Your task to perform on an android device: Empty the shopping cart on costco.com. Add macbook pro to the cart on costco.com Image 0: 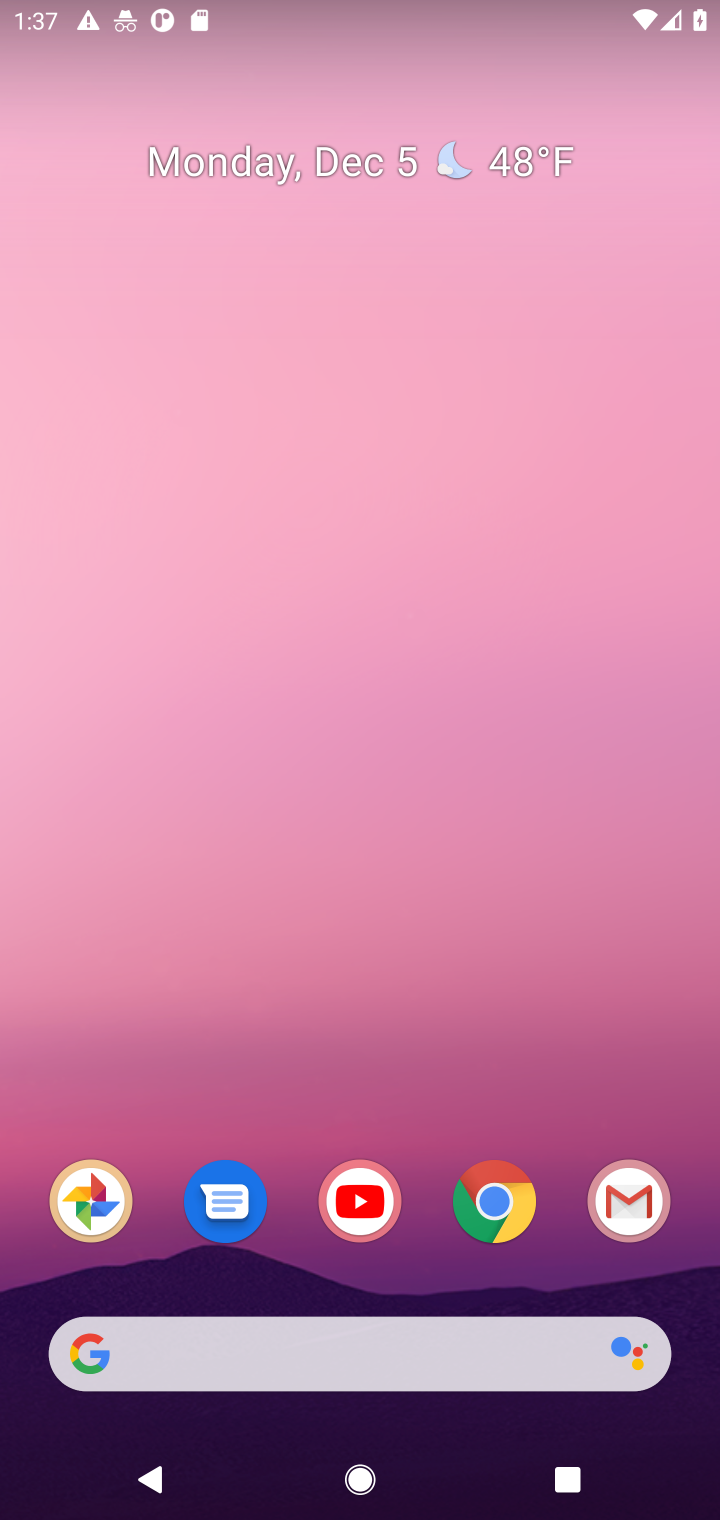
Step 0: click (483, 1223)
Your task to perform on an android device: Empty the shopping cart on costco.com. Add macbook pro to the cart on costco.com Image 1: 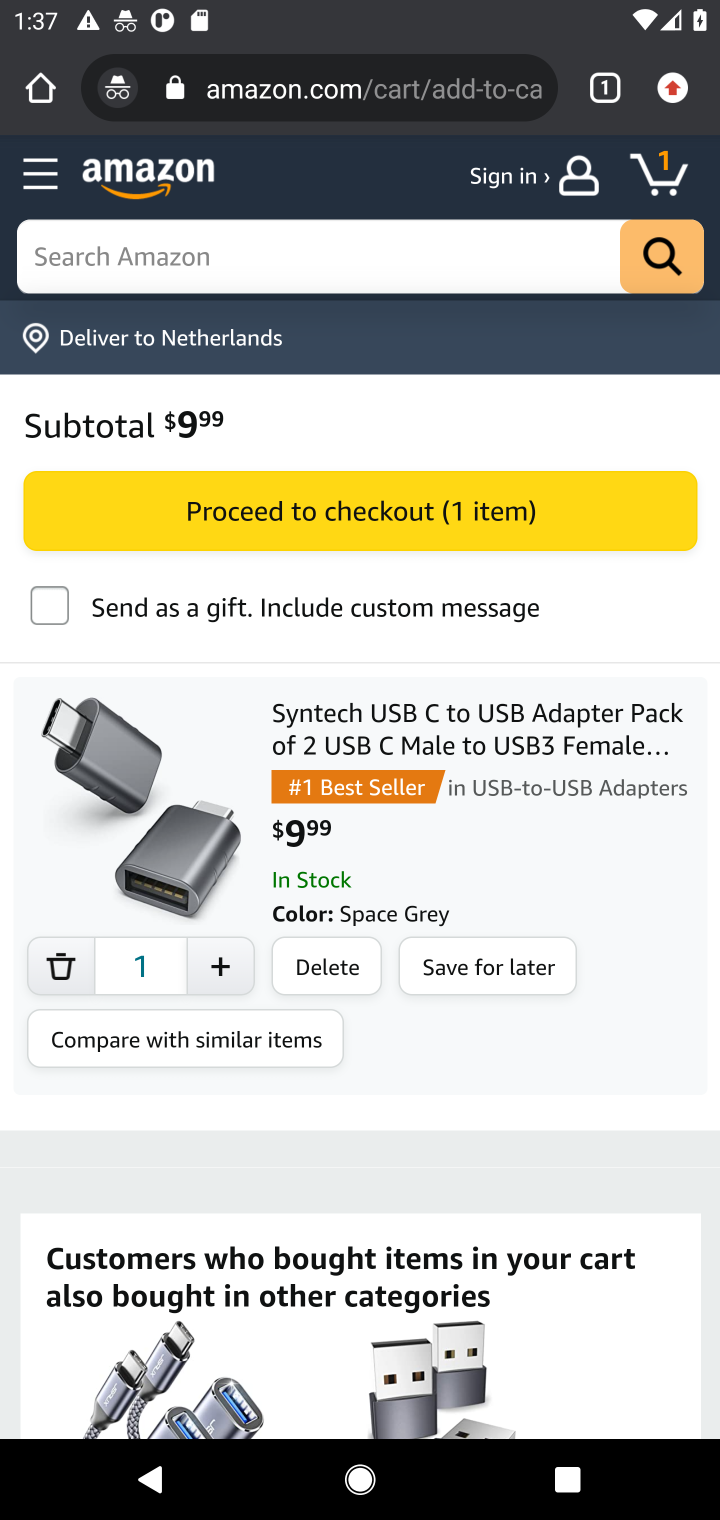
Step 1: click (496, 93)
Your task to perform on an android device: Empty the shopping cart on costco.com. Add macbook pro to the cart on costco.com Image 2: 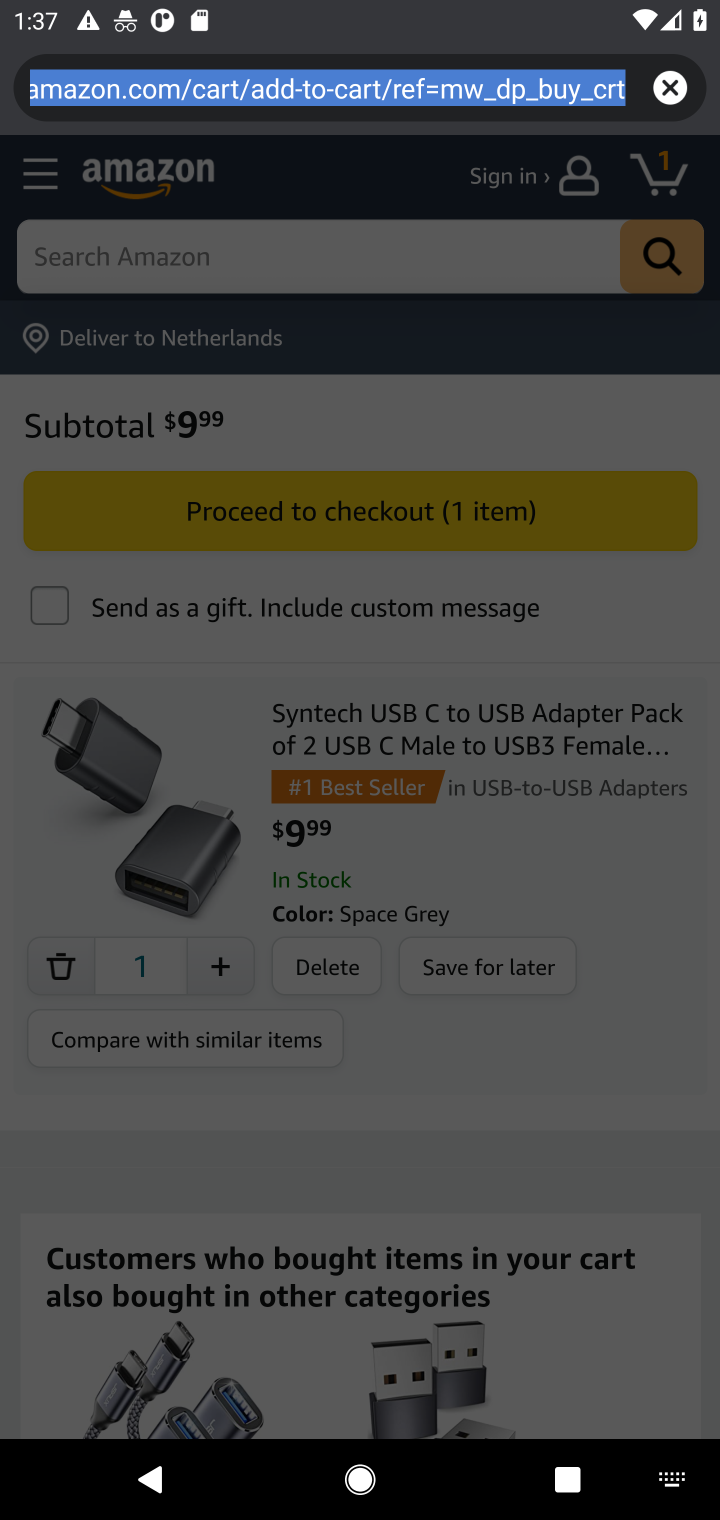
Step 2: click (662, 106)
Your task to perform on an android device: Empty the shopping cart on costco.com. Add macbook pro to the cart on costco.com Image 3: 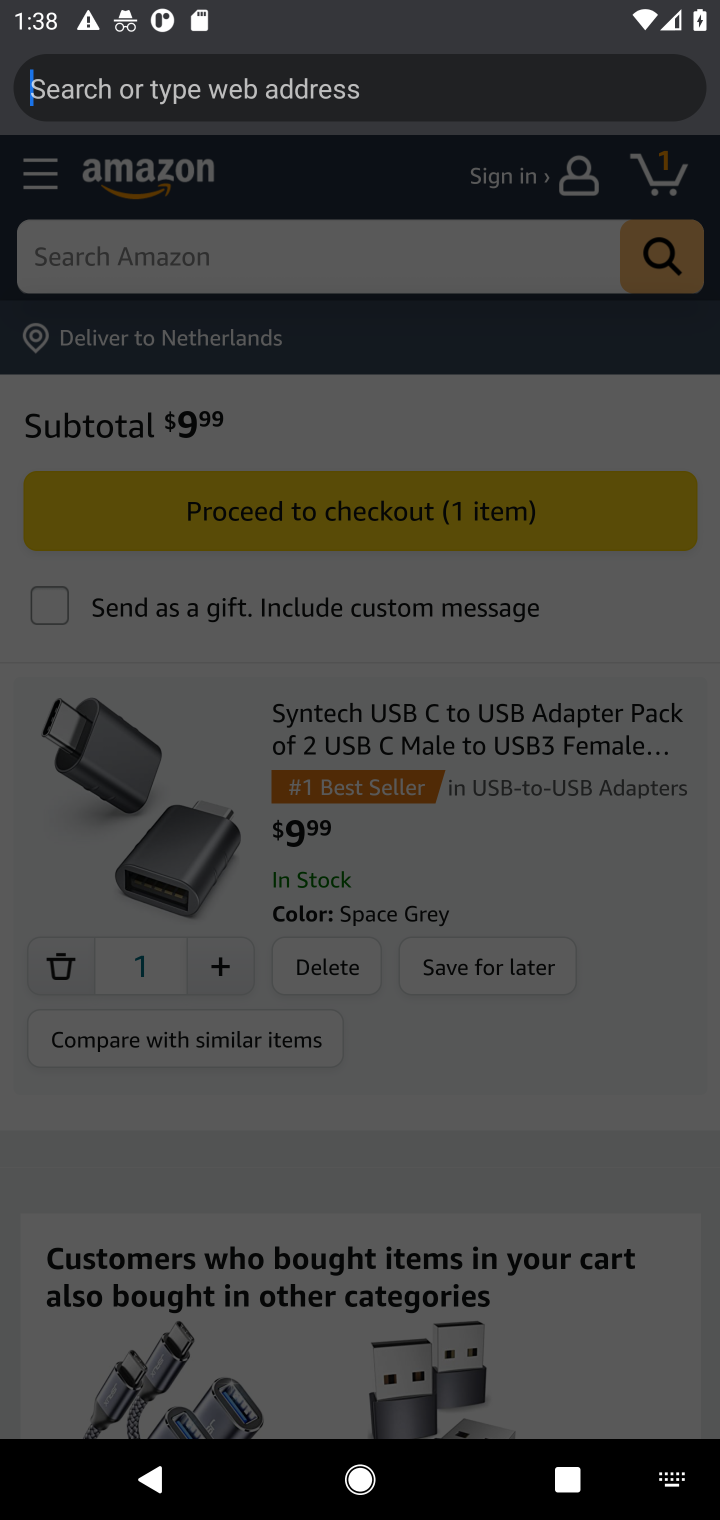
Step 3: type "costco"
Your task to perform on an android device: Empty the shopping cart on costco.com. Add macbook pro to the cart on costco.com Image 4: 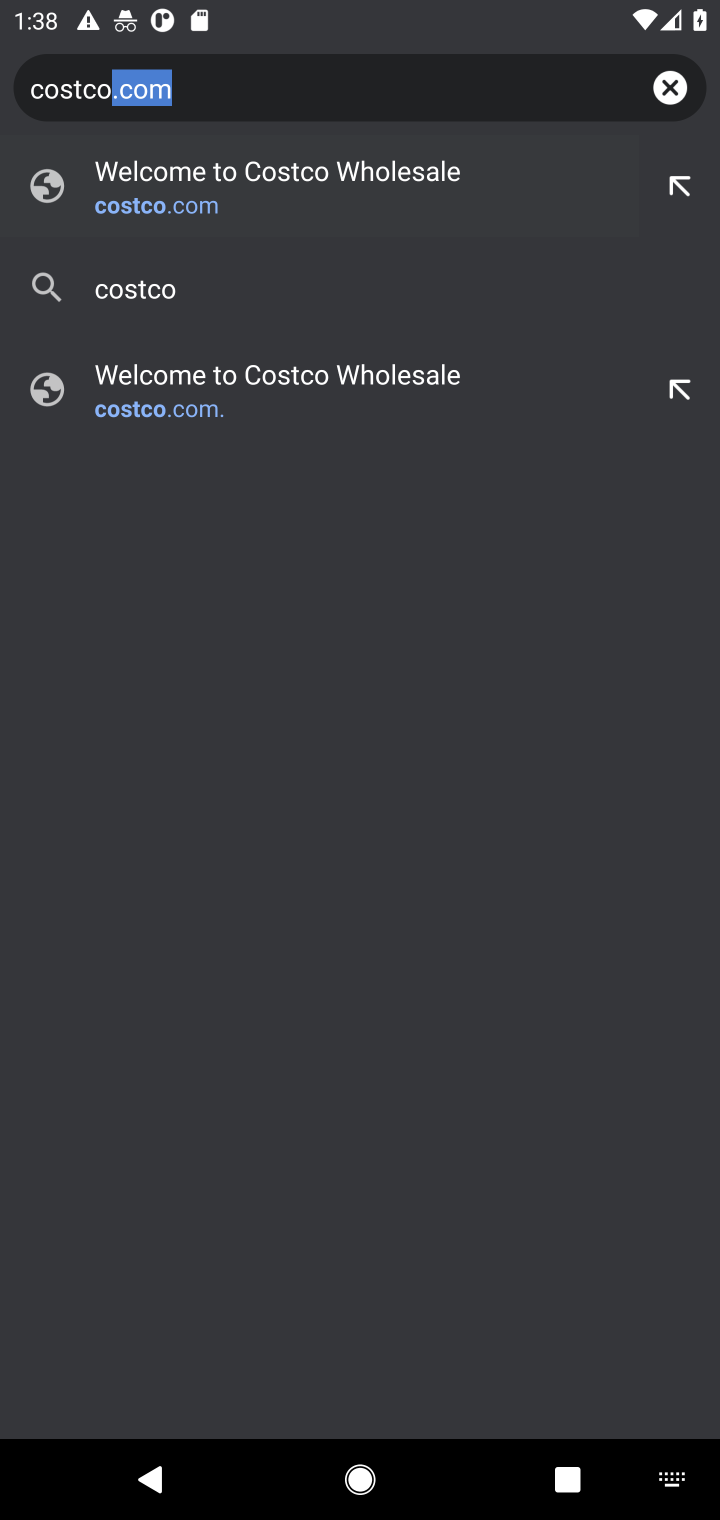
Step 4: click (100, 203)
Your task to perform on an android device: Empty the shopping cart on costco.com. Add macbook pro to the cart on costco.com Image 5: 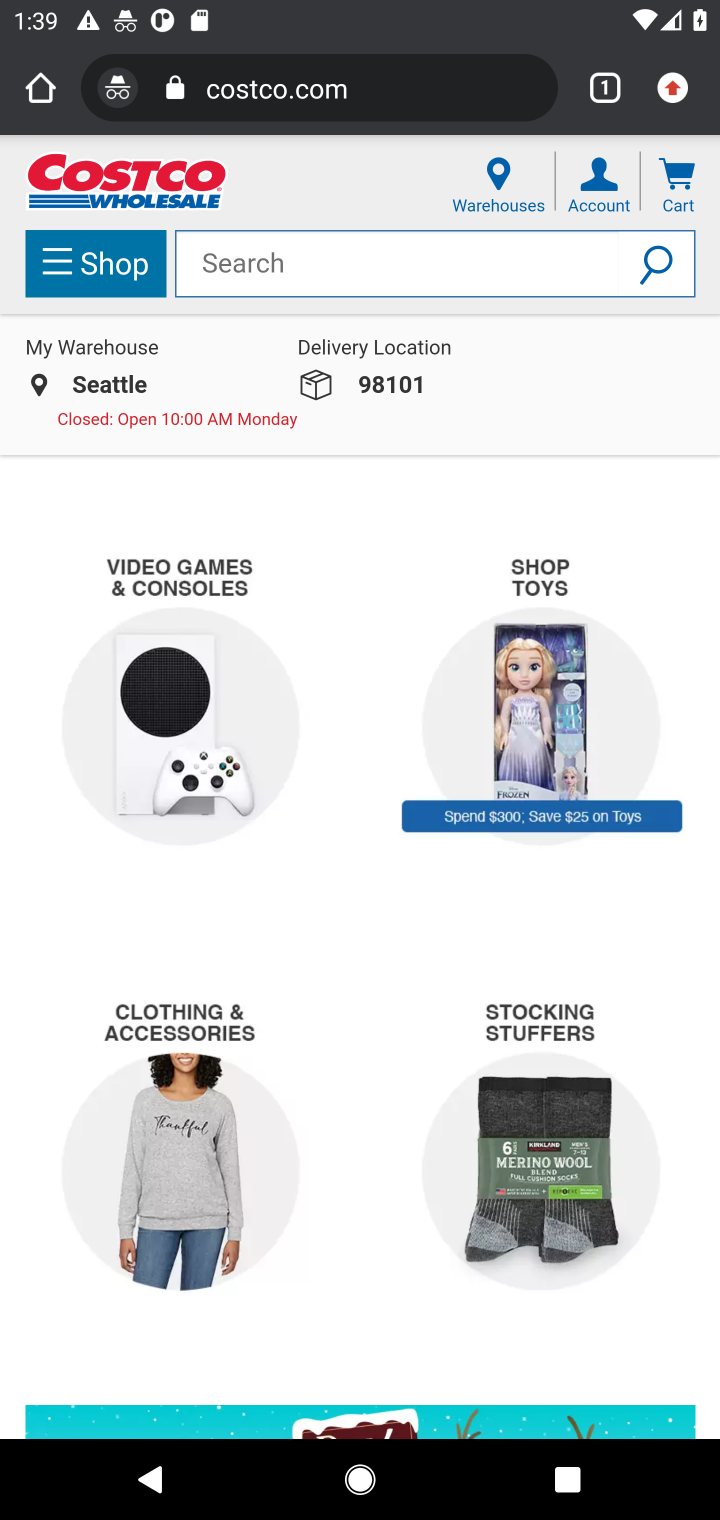
Step 5: click (671, 183)
Your task to perform on an android device: Empty the shopping cart on costco.com. Add macbook pro to the cart on costco.com Image 6: 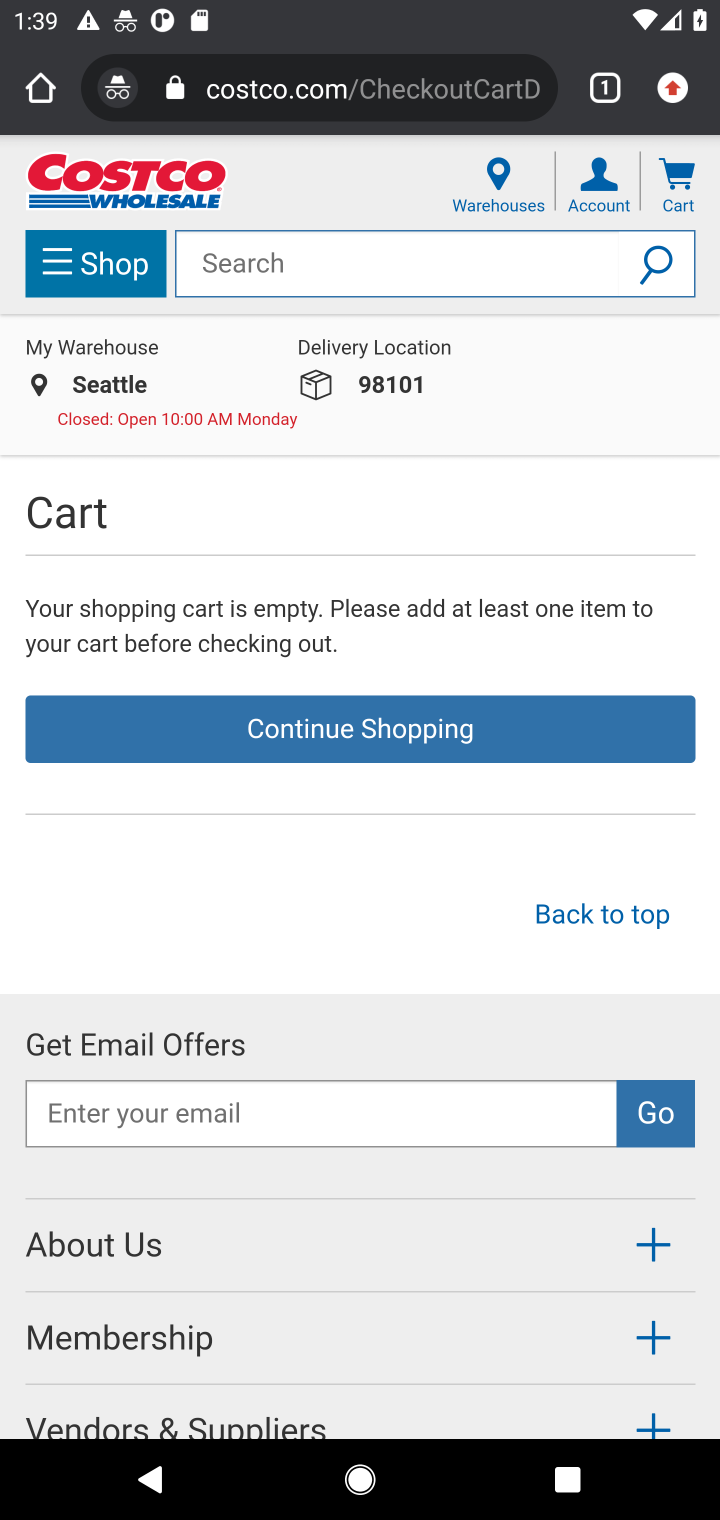
Step 6: click (671, 183)
Your task to perform on an android device: Empty the shopping cart on costco.com. Add macbook pro to the cart on costco.com Image 7: 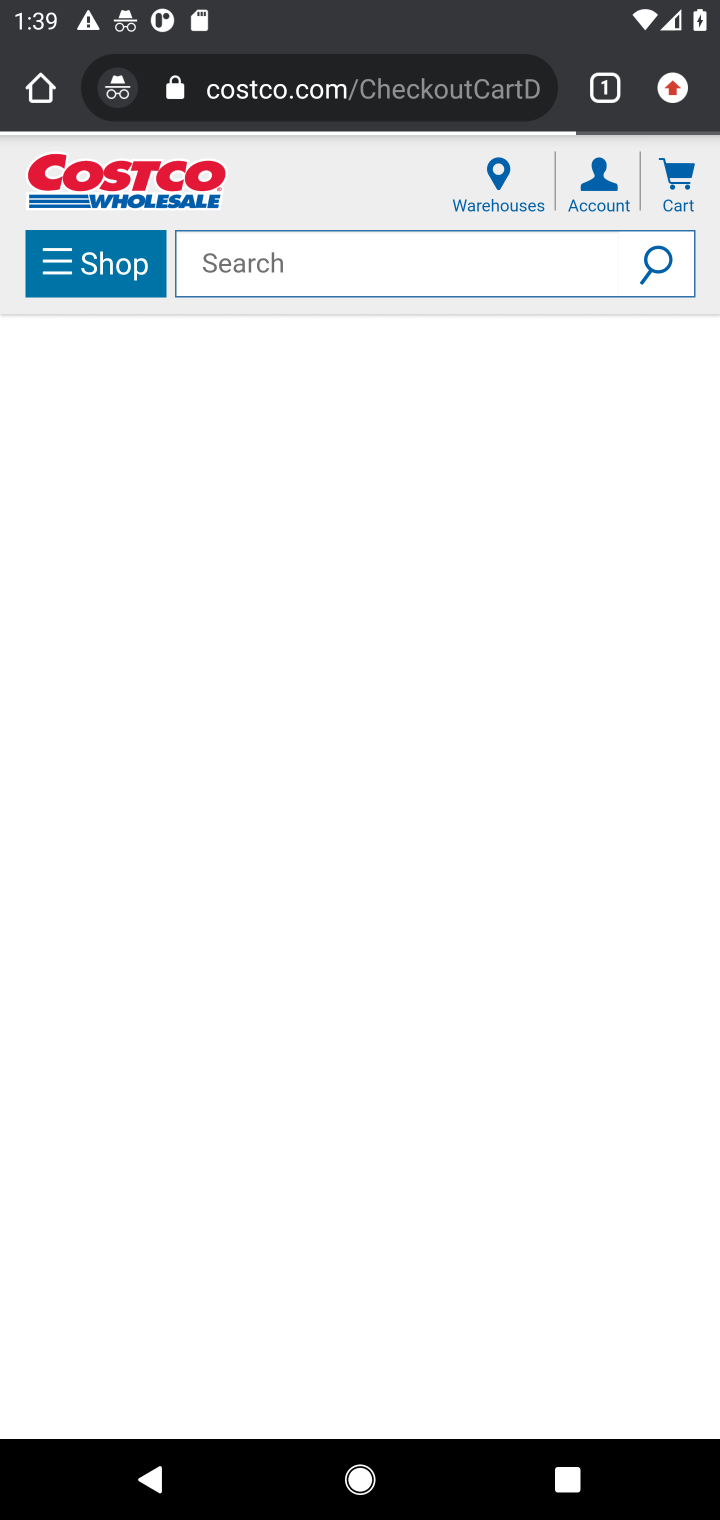
Step 7: click (495, 263)
Your task to perform on an android device: Empty the shopping cart on costco.com. Add macbook pro to the cart on costco.com Image 8: 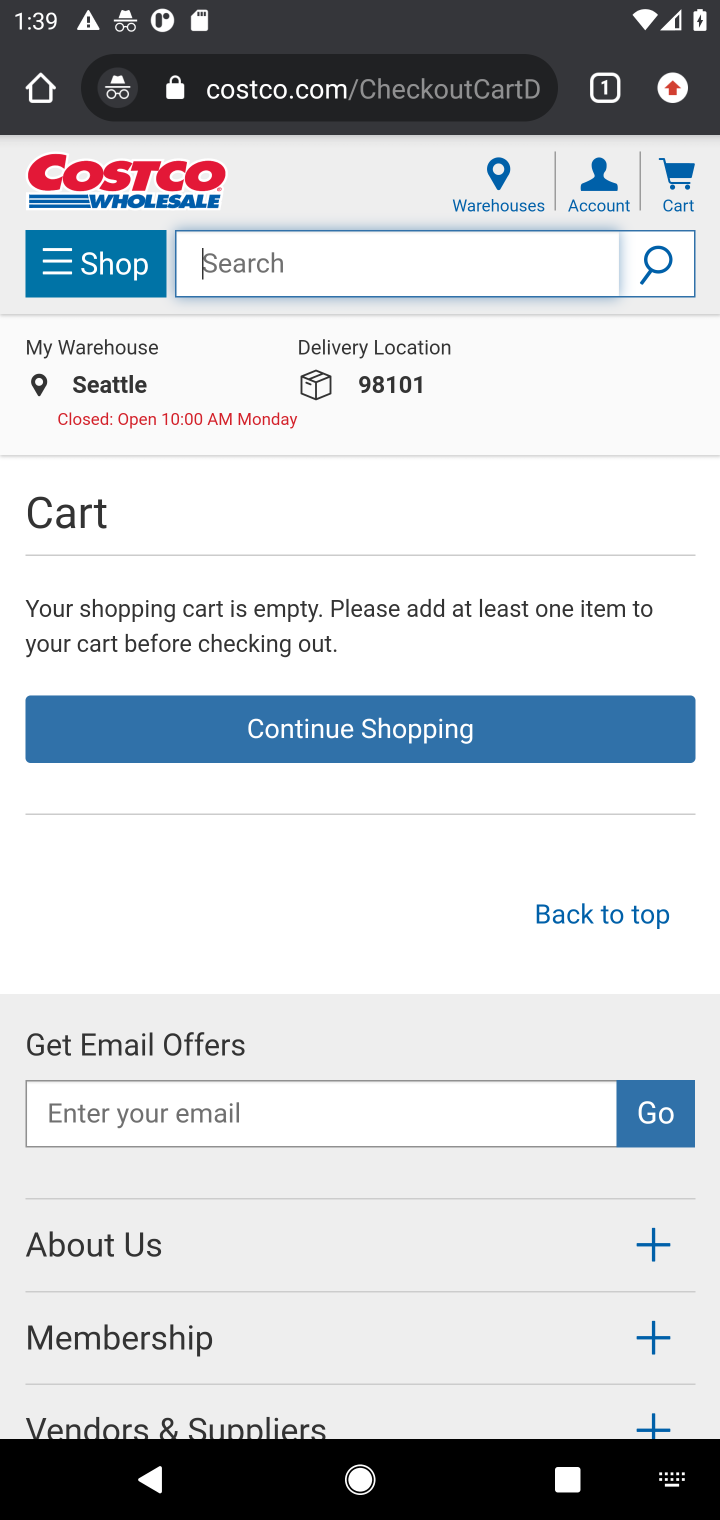
Step 8: type "macbook pro"
Your task to perform on an android device: Empty the shopping cart on costco.com. Add macbook pro to the cart on costco.com Image 9: 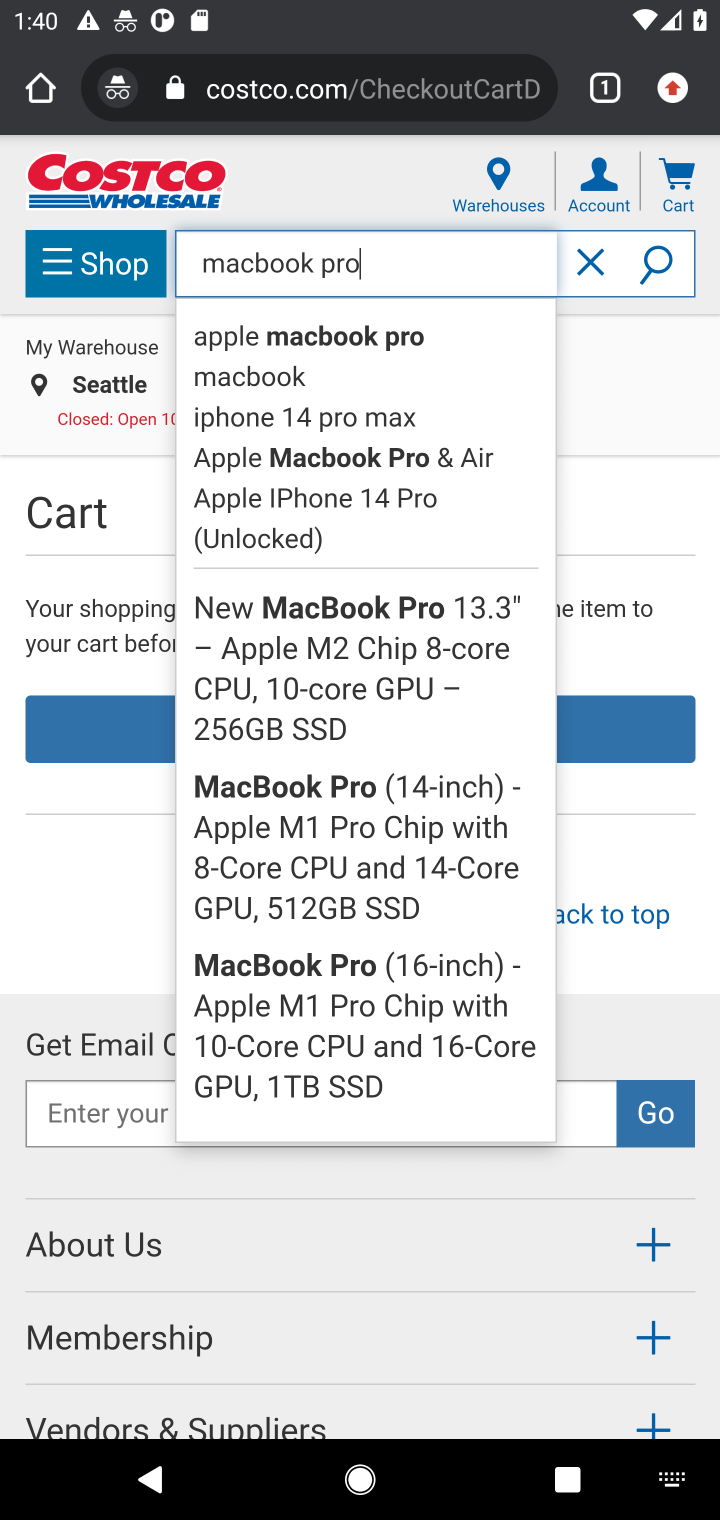
Step 9: click (646, 280)
Your task to perform on an android device: Empty the shopping cart on costco.com. Add macbook pro to the cart on costco.com Image 10: 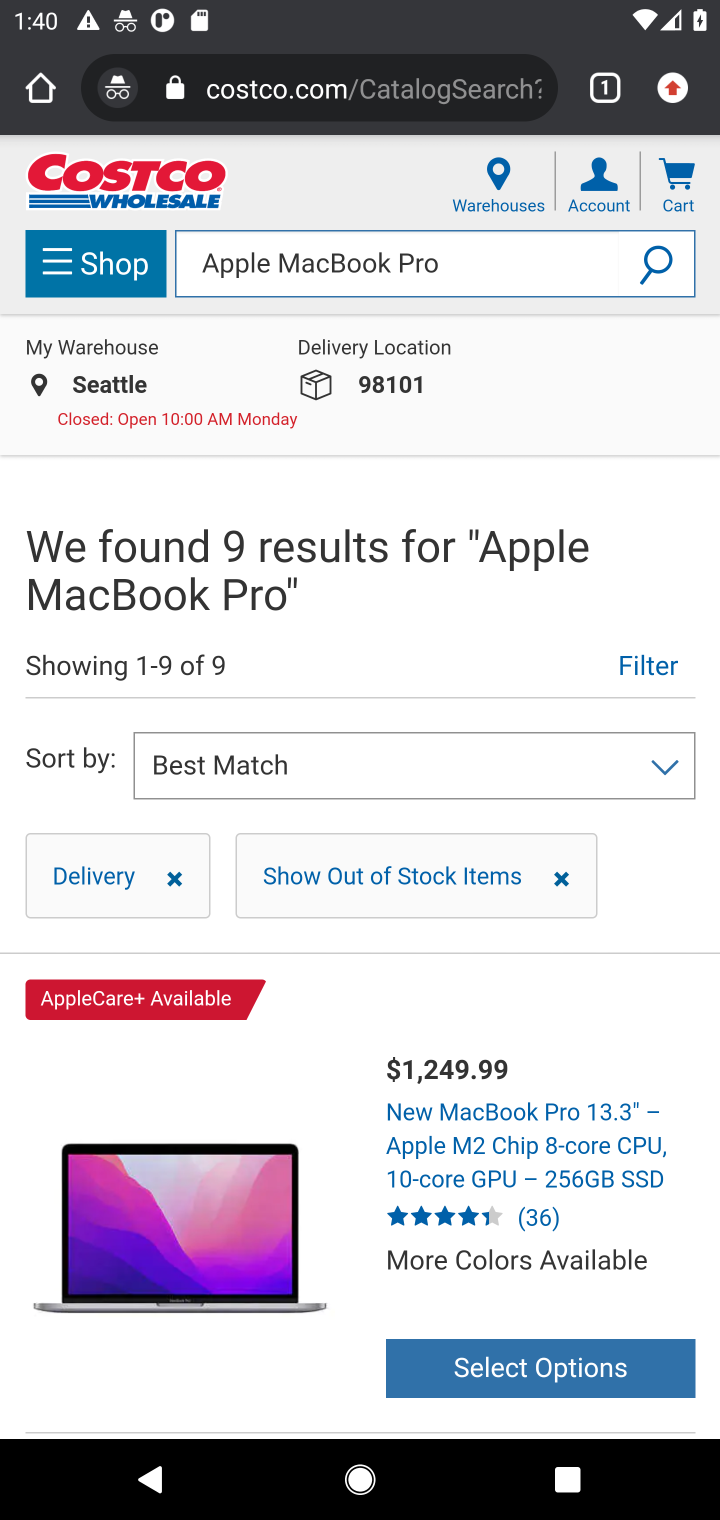
Step 10: drag from (446, 1229) to (480, 510)
Your task to perform on an android device: Empty the shopping cart on costco.com. Add macbook pro to the cart on costco.com Image 11: 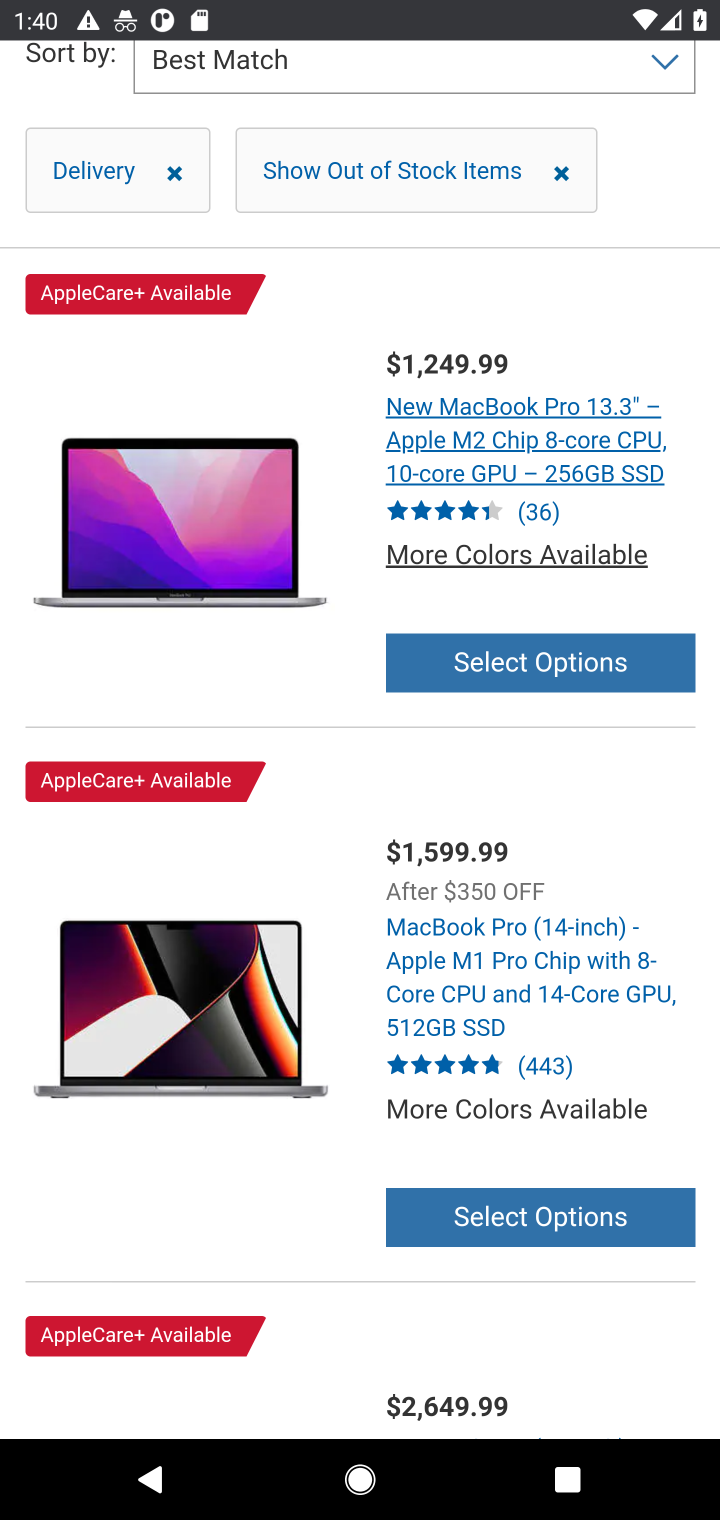
Step 11: click (532, 655)
Your task to perform on an android device: Empty the shopping cart on costco.com. Add macbook pro to the cart on costco.com Image 12: 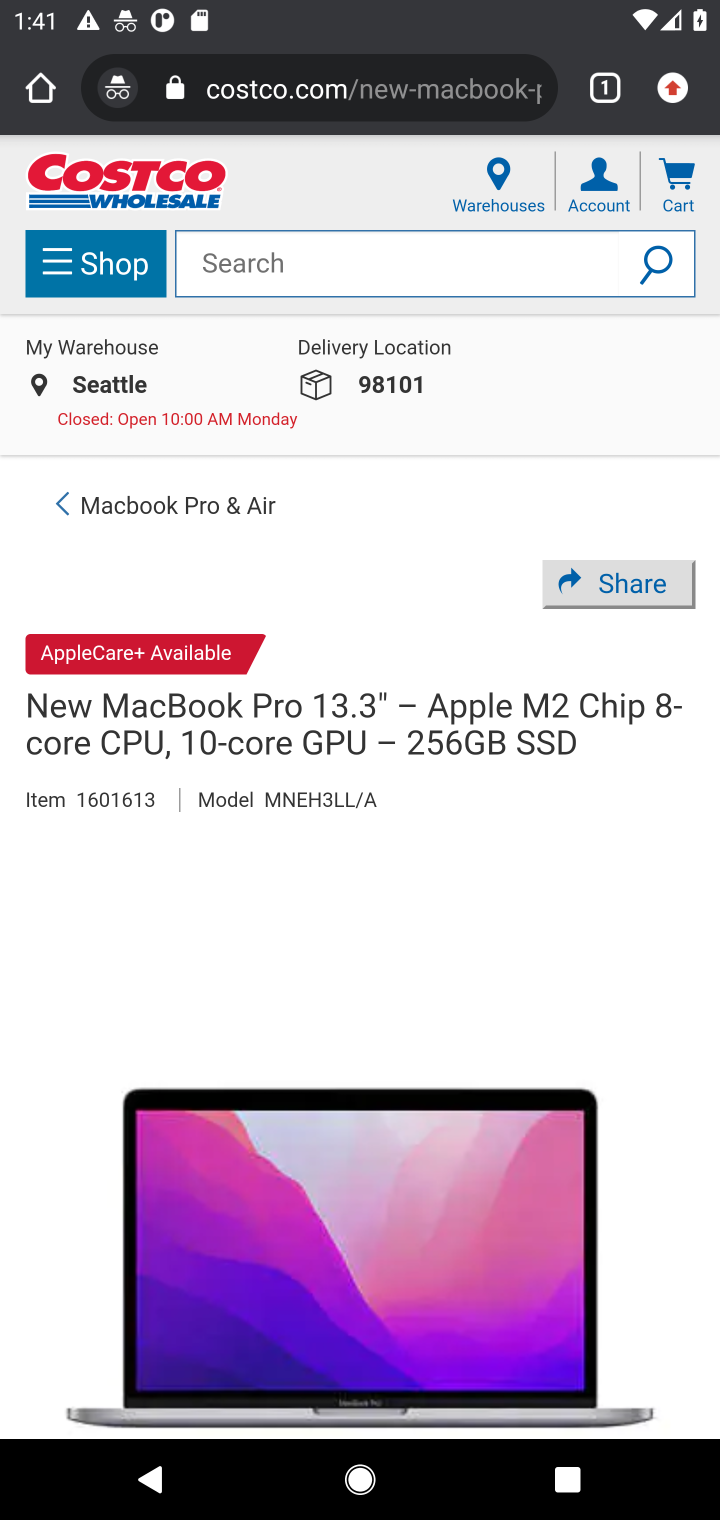
Step 12: drag from (297, 945) to (352, 296)
Your task to perform on an android device: Empty the shopping cart on costco.com. Add macbook pro to the cart on costco.com Image 13: 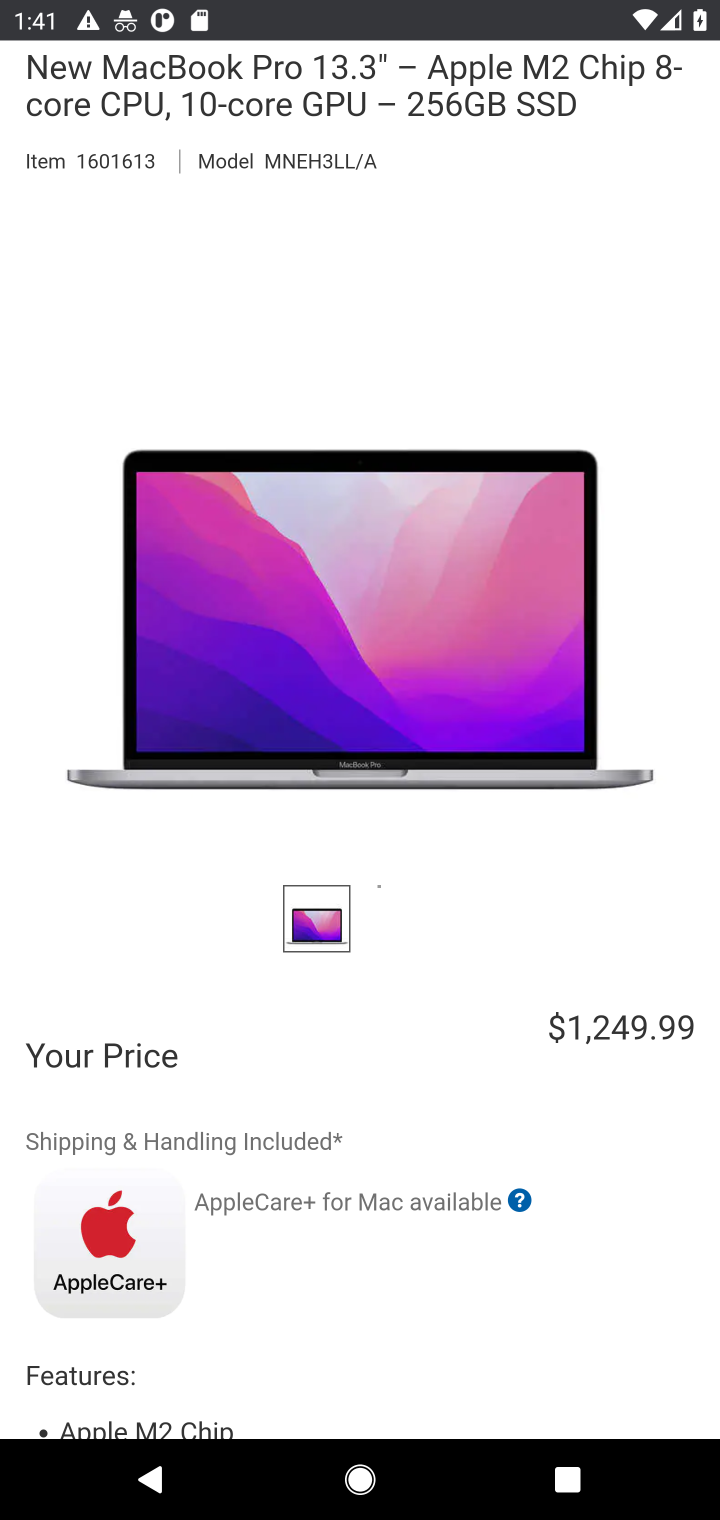
Step 13: drag from (289, 1150) to (318, 499)
Your task to perform on an android device: Empty the shopping cart on costco.com. Add macbook pro to the cart on costco.com Image 14: 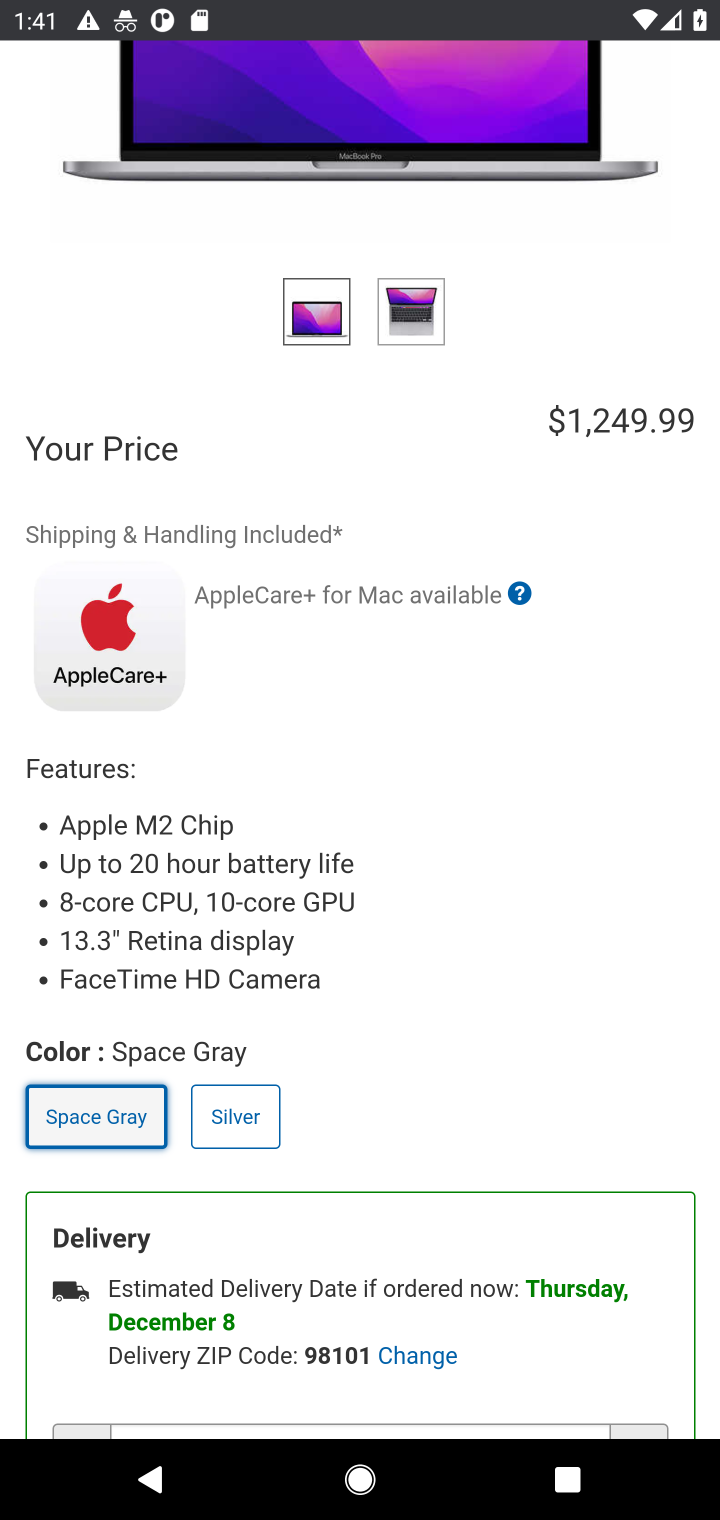
Step 14: drag from (381, 1146) to (434, 424)
Your task to perform on an android device: Empty the shopping cart on costco.com. Add macbook pro to the cart on costco.com Image 15: 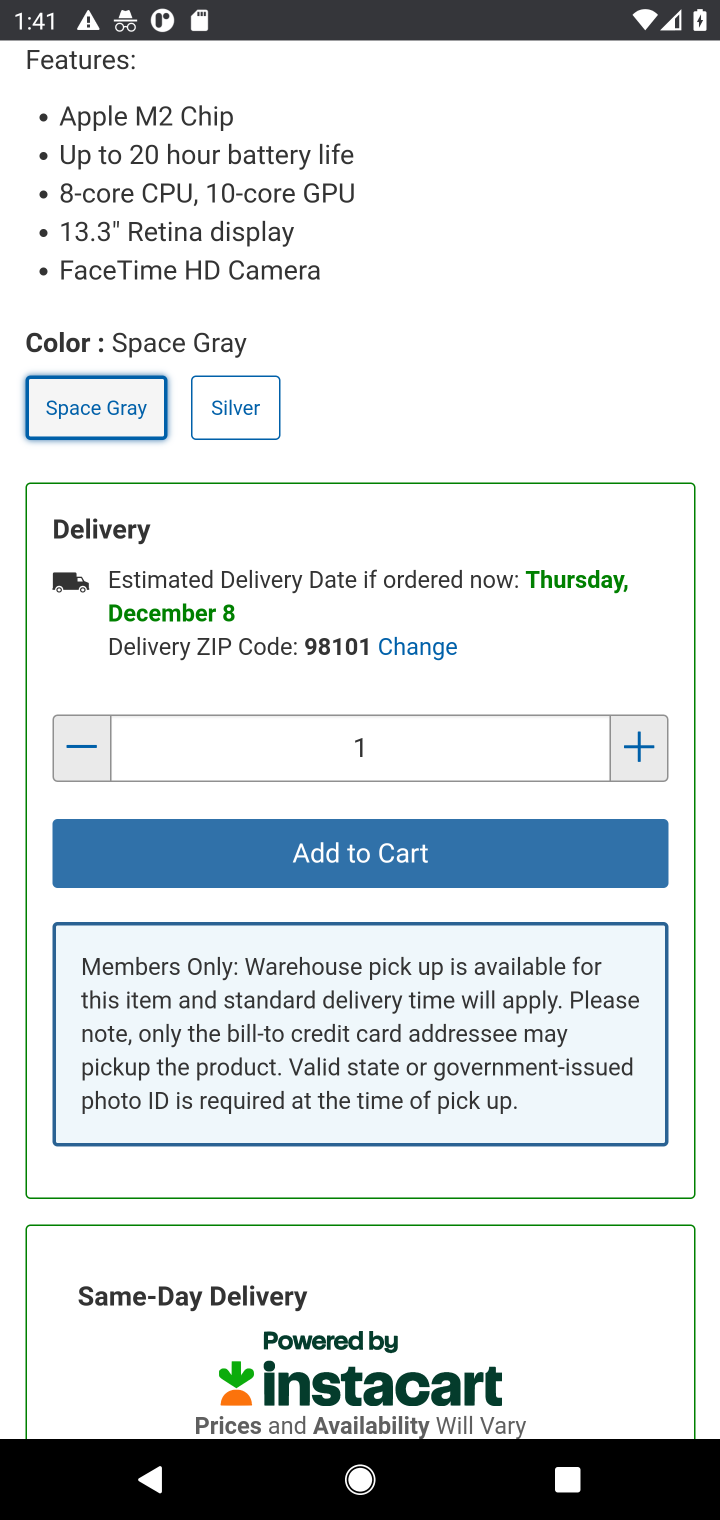
Step 15: click (438, 838)
Your task to perform on an android device: Empty the shopping cart on costco.com. Add macbook pro to the cart on costco.com Image 16: 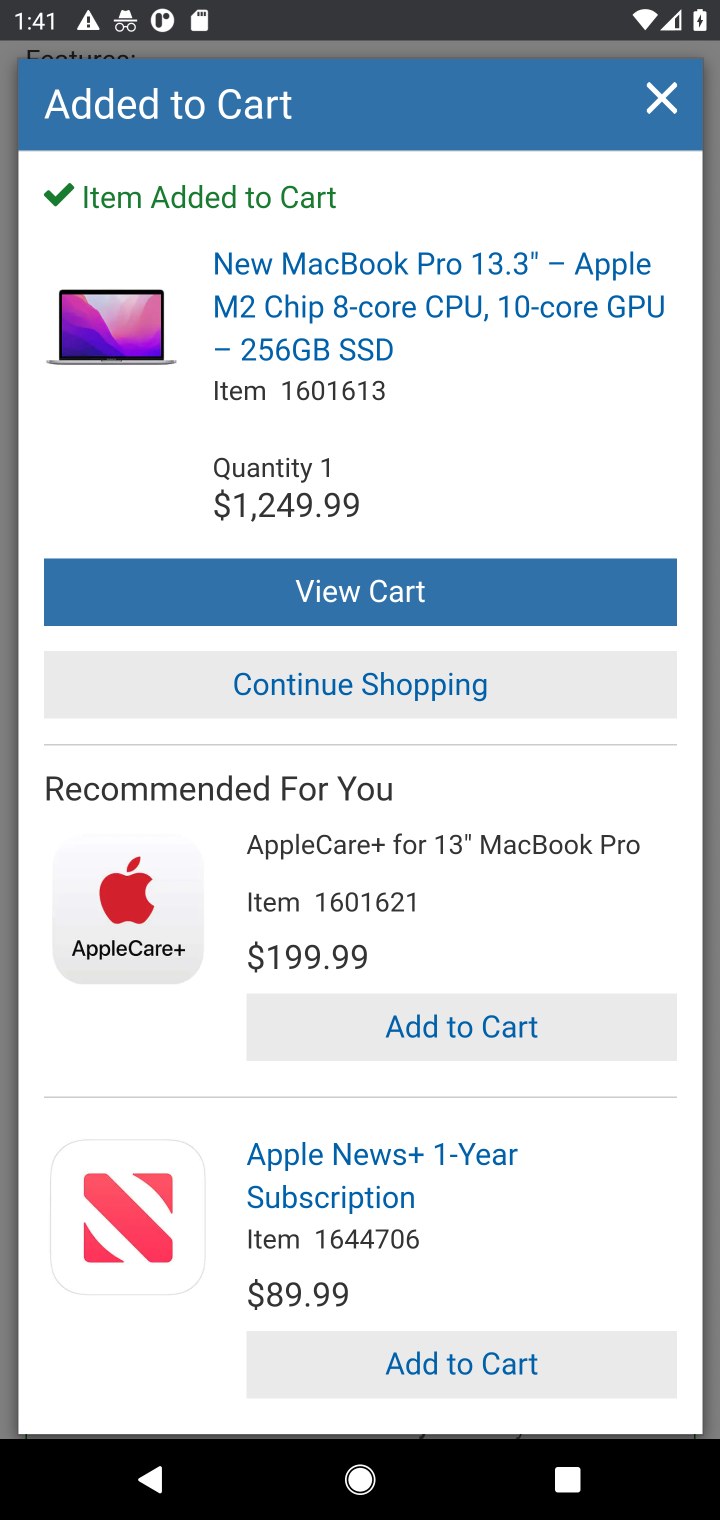
Step 16: task complete